Your task to perform on an android device: change your default location settings in chrome Image 0: 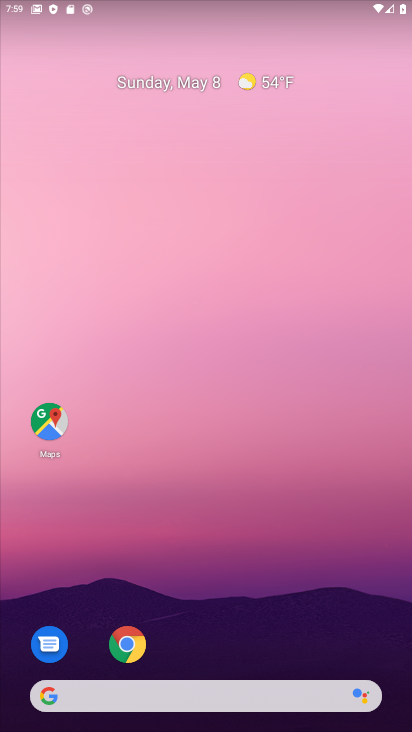
Step 0: click (128, 646)
Your task to perform on an android device: change your default location settings in chrome Image 1: 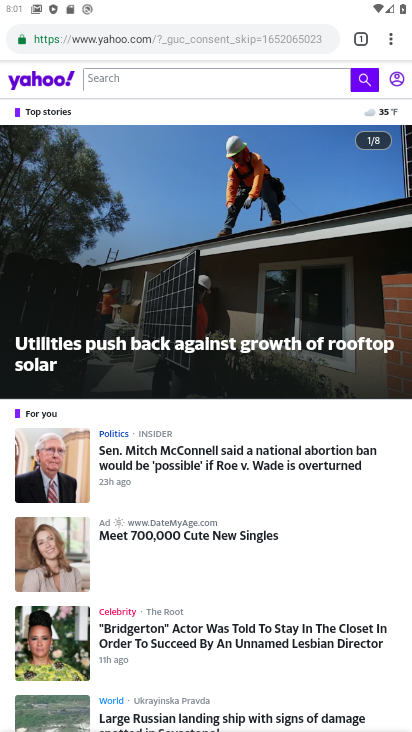
Step 1: click (391, 40)
Your task to perform on an android device: change your default location settings in chrome Image 2: 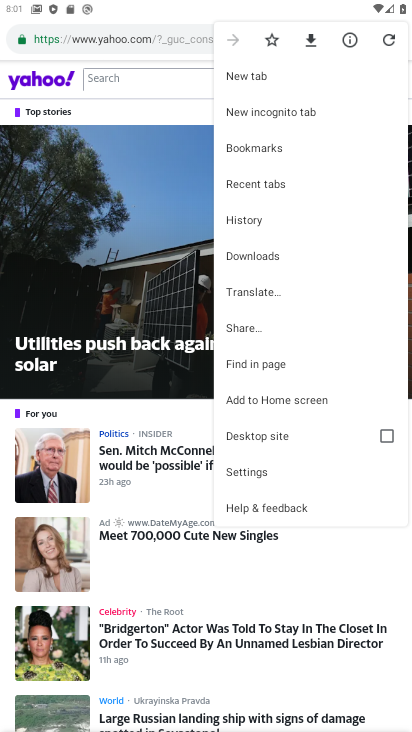
Step 2: click (241, 474)
Your task to perform on an android device: change your default location settings in chrome Image 3: 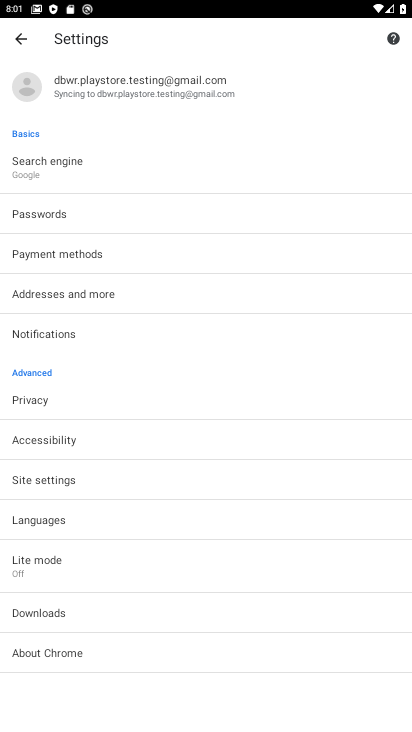
Step 3: click (31, 483)
Your task to perform on an android device: change your default location settings in chrome Image 4: 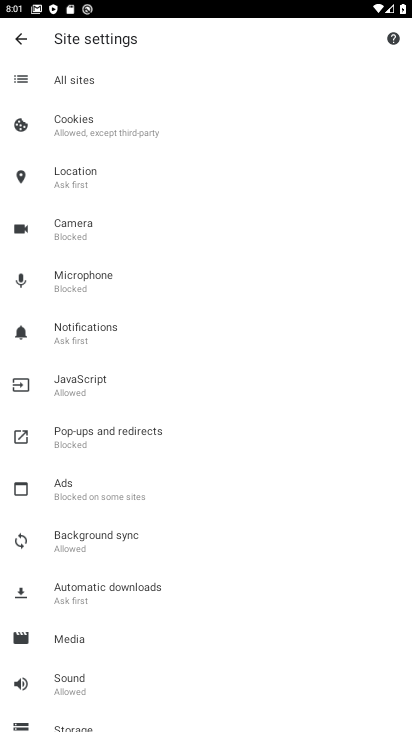
Step 4: click (83, 179)
Your task to perform on an android device: change your default location settings in chrome Image 5: 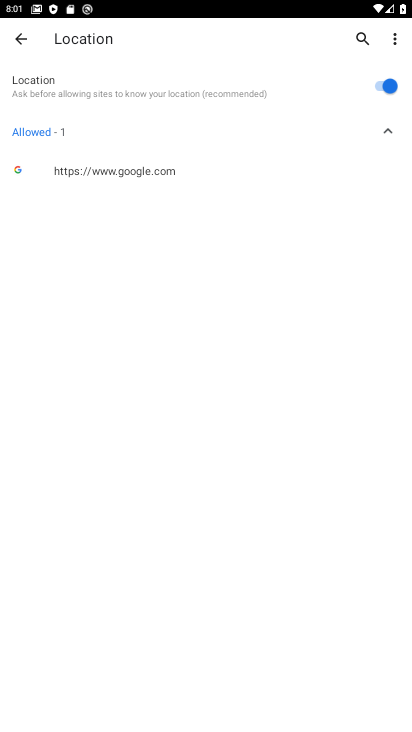
Step 5: click (377, 87)
Your task to perform on an android device: change your default location settings in chrome Image 6: 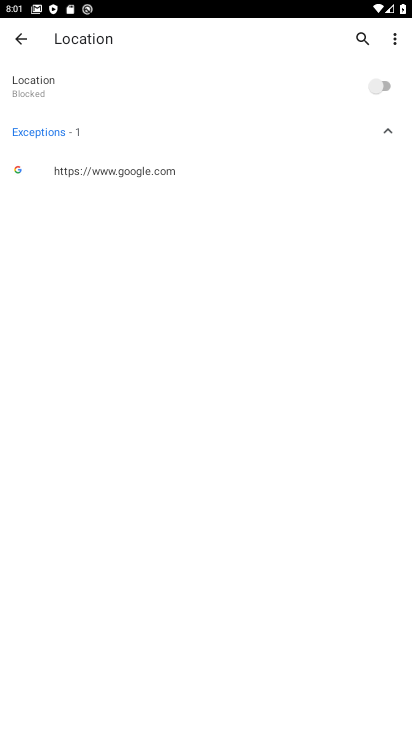
Step 6: task complete